Your task to perform on an android device: Show me popular videos on Youtube Image 0: 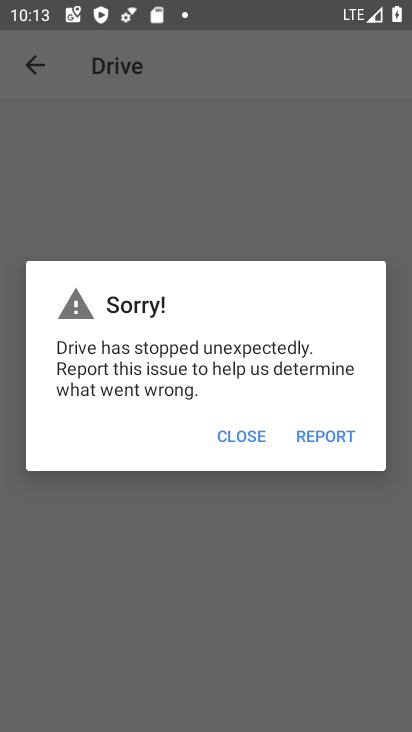
Step 0: press home button
Your task to perform on an android device: Show me popular videos on Youtube Image 1: 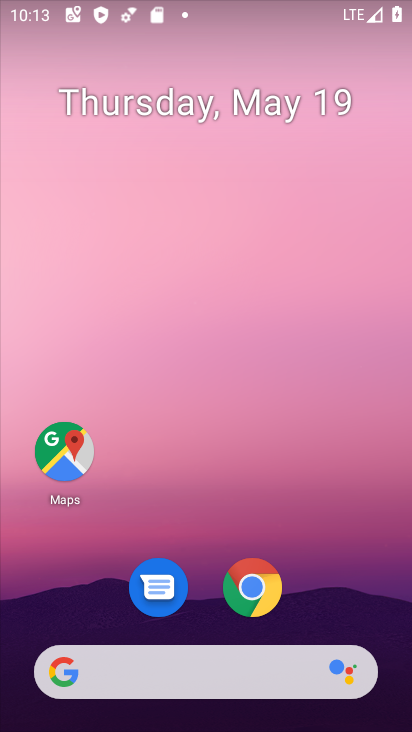
Step 1: drag from (210, 631) to (193, 43)
Your task to perform on an android device: Show me popular videos on Youtube Image 2: 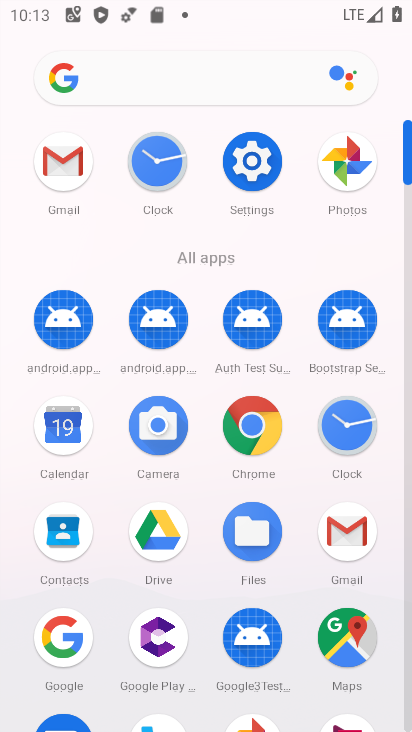
Step 2: drag from (218, 495) to (237, 177)
Your task to perform on an android device: Show me popular videos on Youtube Image 3: 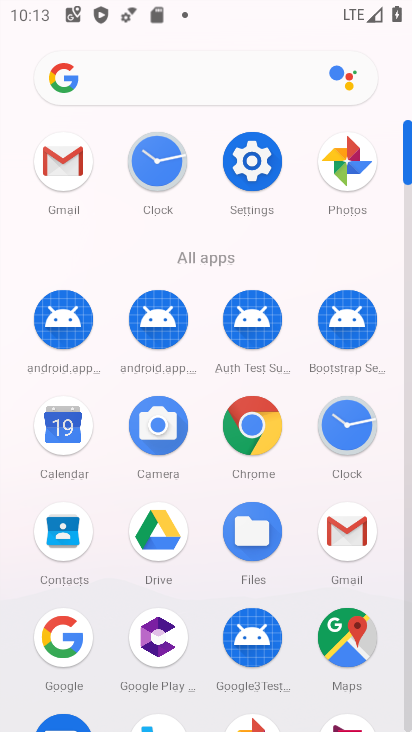
Step 3: drag from (207, 676) to (184, 346)
Your task to perform on an android device: Show me popular videos on Youtube Image 4: 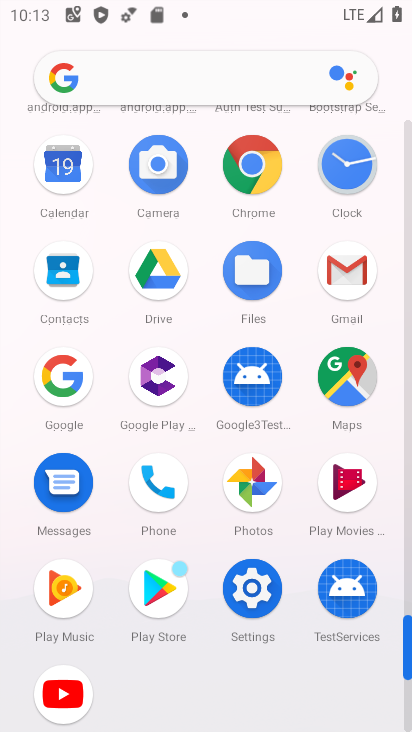
Step 4: click (54, 704)
Your task to perform on an android device: Show me popular videos on Youtube Image 5: 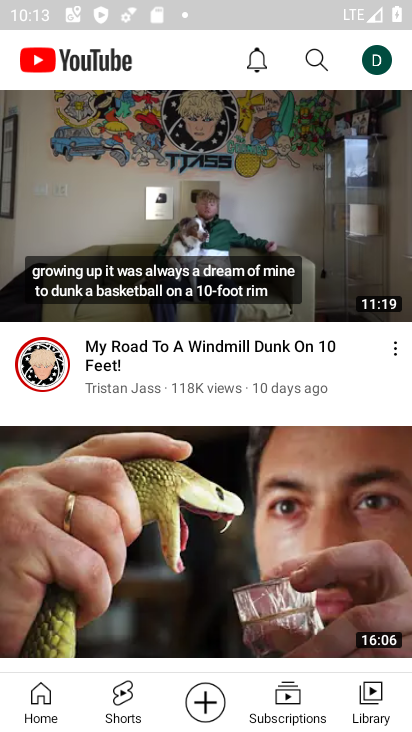
Step 5: click (49, 696)
Your task to perform on an android device: Show me popular videos on Youtube Image 6: 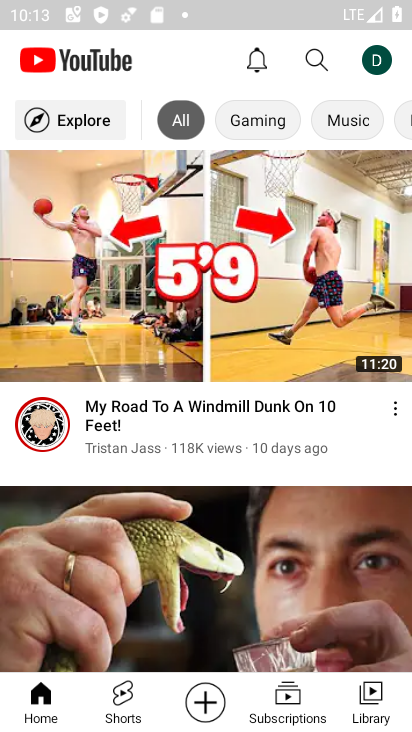
Step 6: click (88, 118)
Your task to perform on an android device: Show me popular videos on Youtube Image 7: 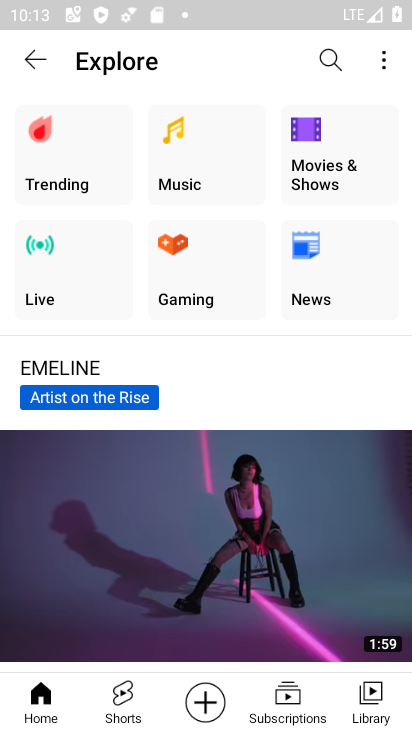
Step 7: click (88, 118)
Your task to perform on an android device: Show me popular videos on Youtube Image 8: 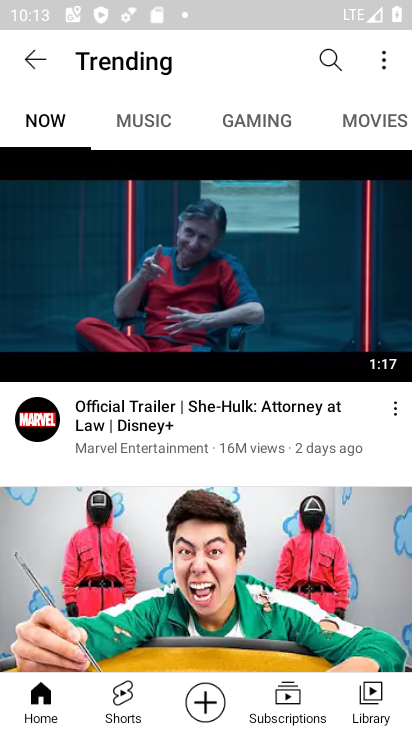
Step 8: task complete